Your task to perform on an android device: turn off smart reply in the gmail app Image 0: 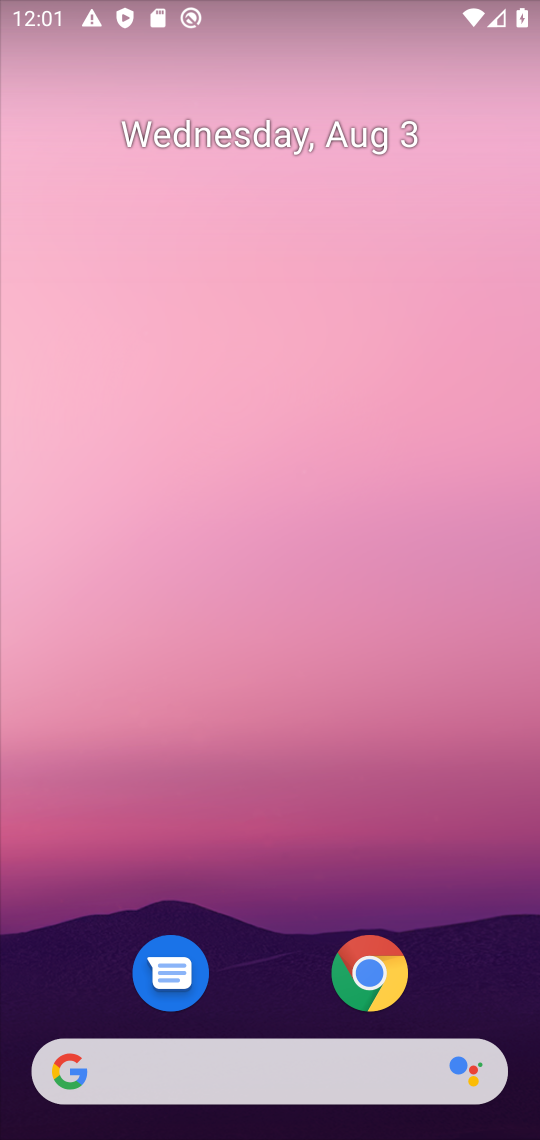
Step 0: drag from (228, 1049) to (126, 93)
Your task to perform on an android device: turn off smart reply in the gmail app Image 1: 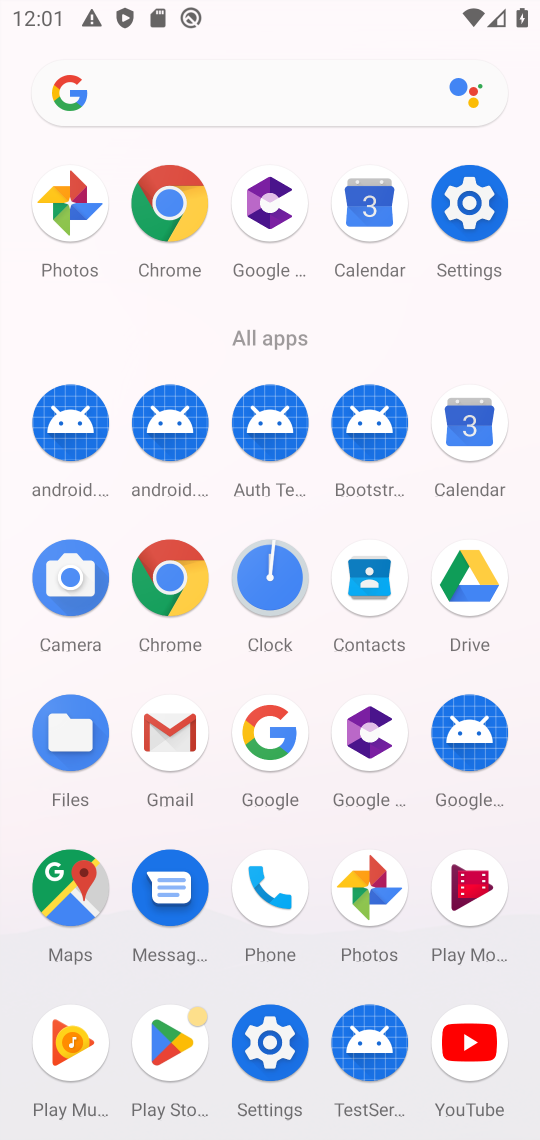
Step 1: click (163, 732)
Your task to perform on an android device: turn off smart reply in the gmail app Image 2: 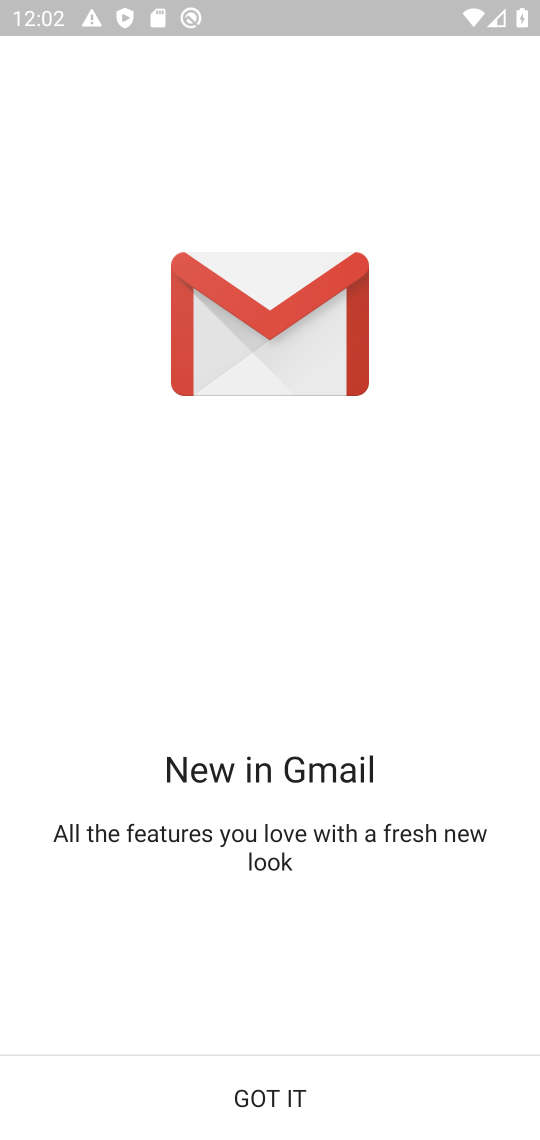
Step 2: click (271, 1078)
Your task to perform on an android device: turn off smart reply in the gmail app Image 3: 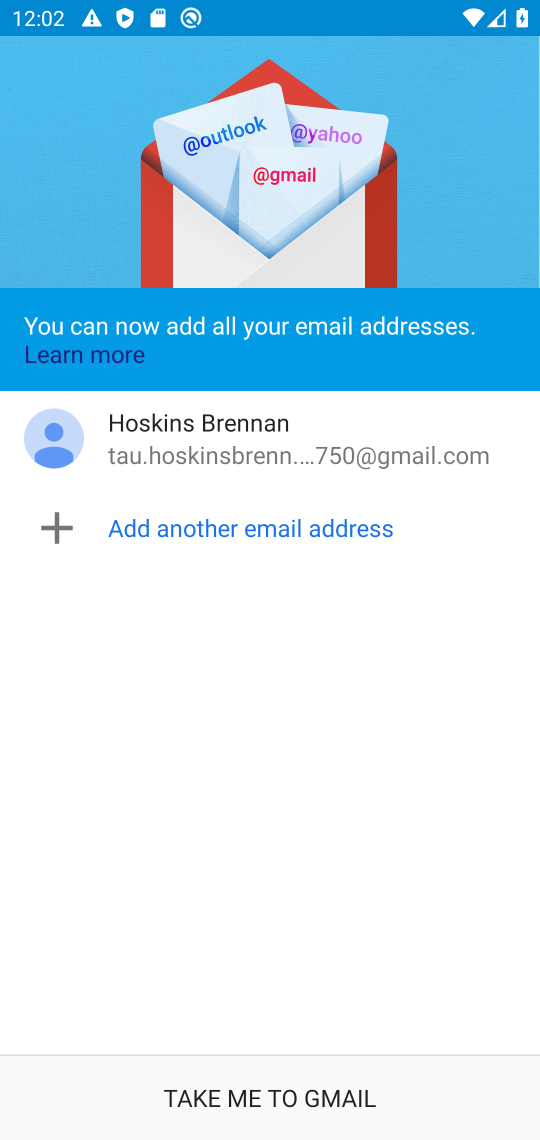
Step 3: click (282, 1098)
Your task to perform on an android device: turn off smart reply in the gmail app Image 4: 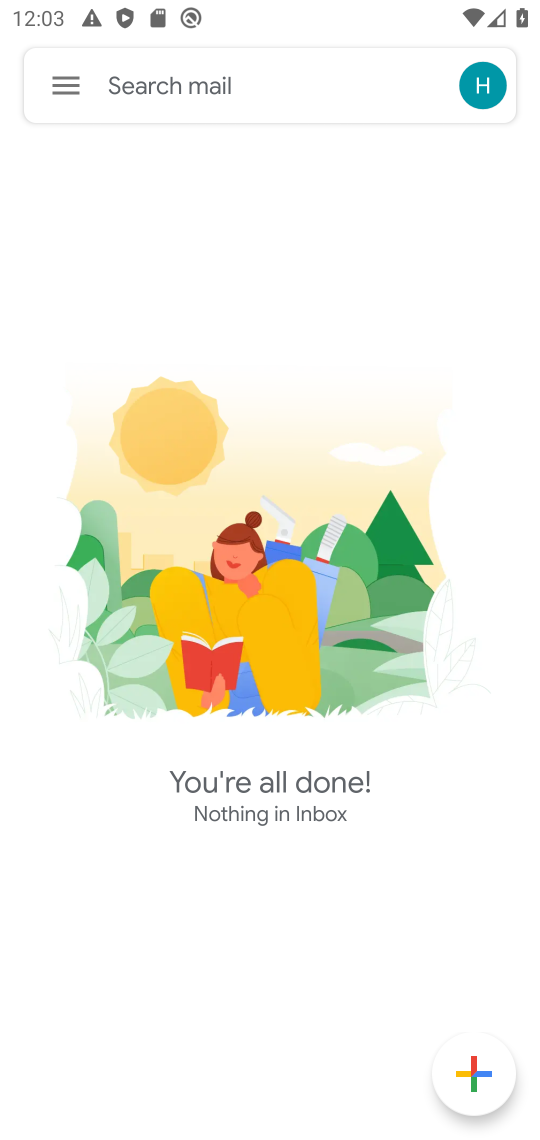
Step 4: click (66, 76)
Your task to perform on an android device: turn off smart reply in the gmail app Image 5: 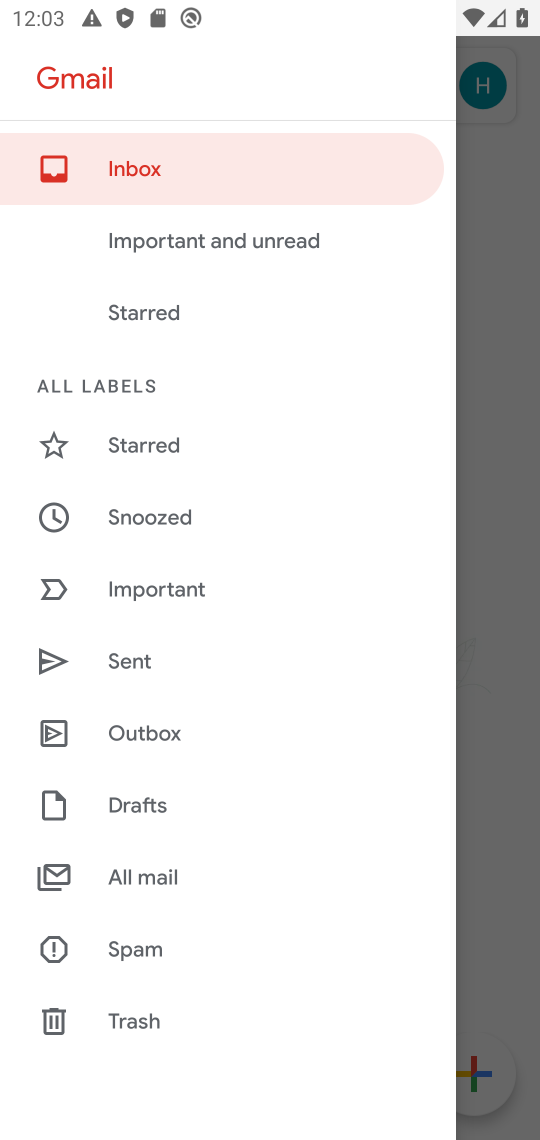
Step 5: drag from (190, 1049) to (98, 231)
Your task to perform on an android device: turn off smart reply in the gmail app Image 6: 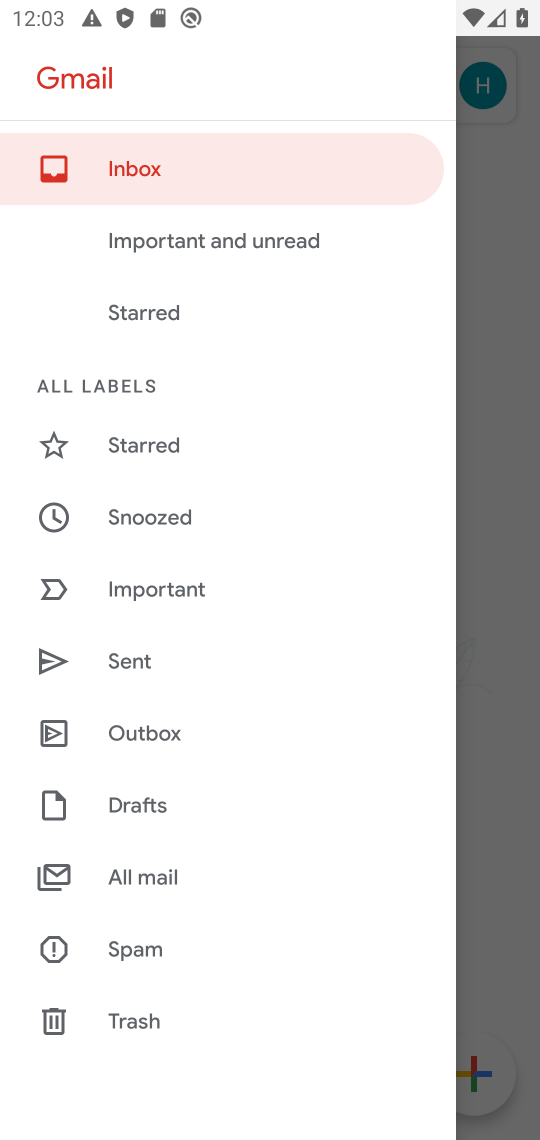
Step 6: drag from (140, 968) to (129, 317)
Your task to perform on an android device: turn off smart reply in the gmail app Image 7: 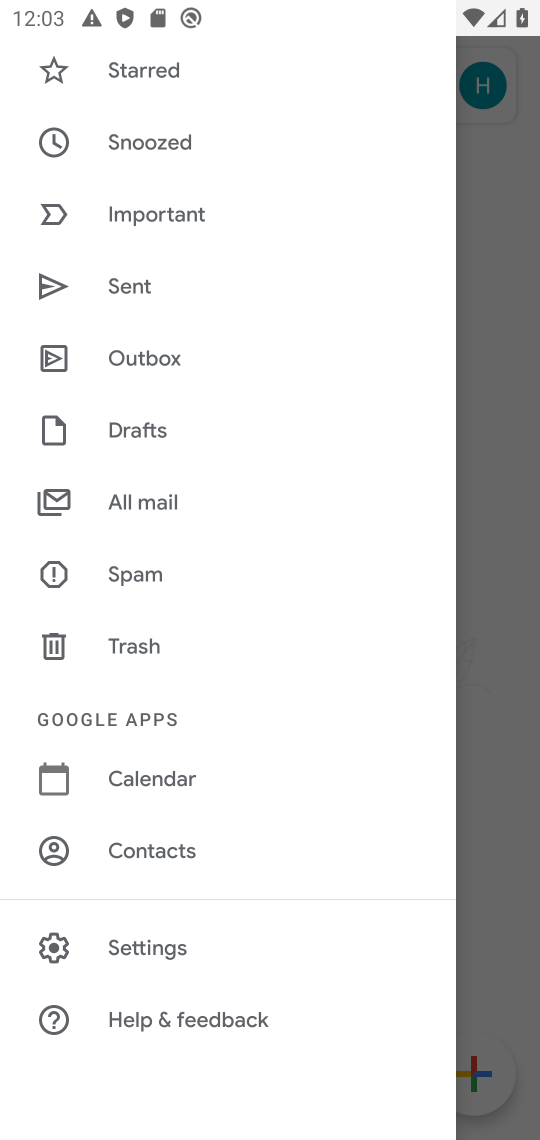
Step 7: click (109, 950)
Your task to perform on an android device: turn off smart reply in the gmail app Image 8: 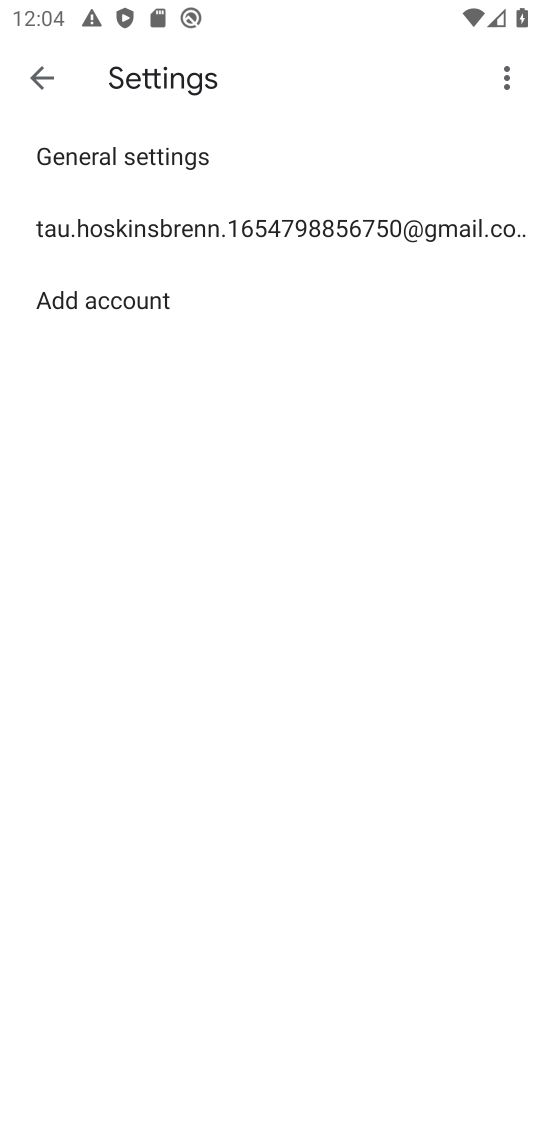
Step 8: click (121, 226)
Your task to perform on an android device: turn off smart reply in the gmail app Image 9: 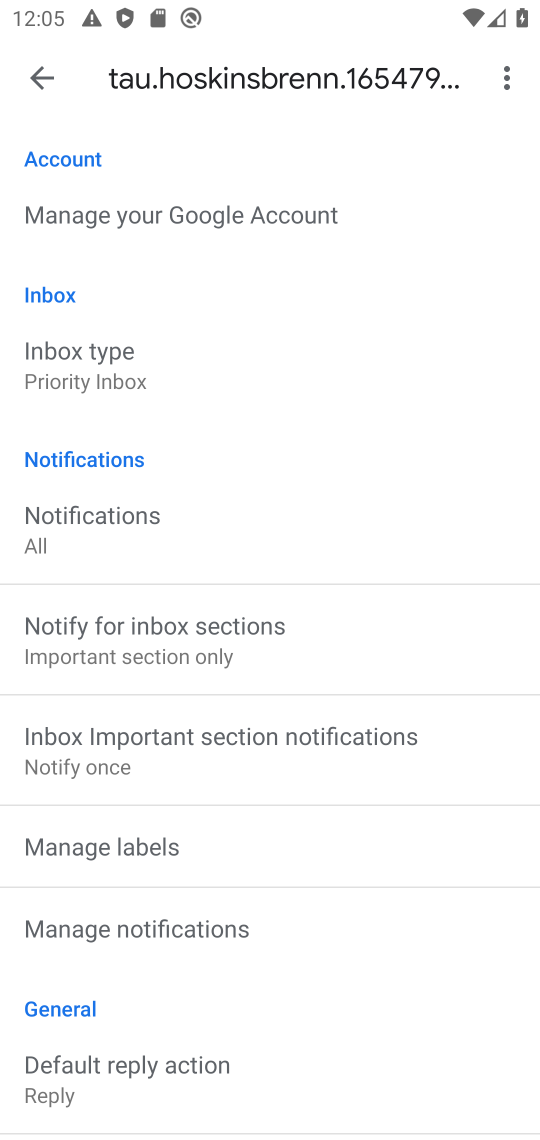
Step 9: drag from (197, 1061) to (252, 30)
Your task to perform on an android device: turn off smart reply in the gmail app Image 10: 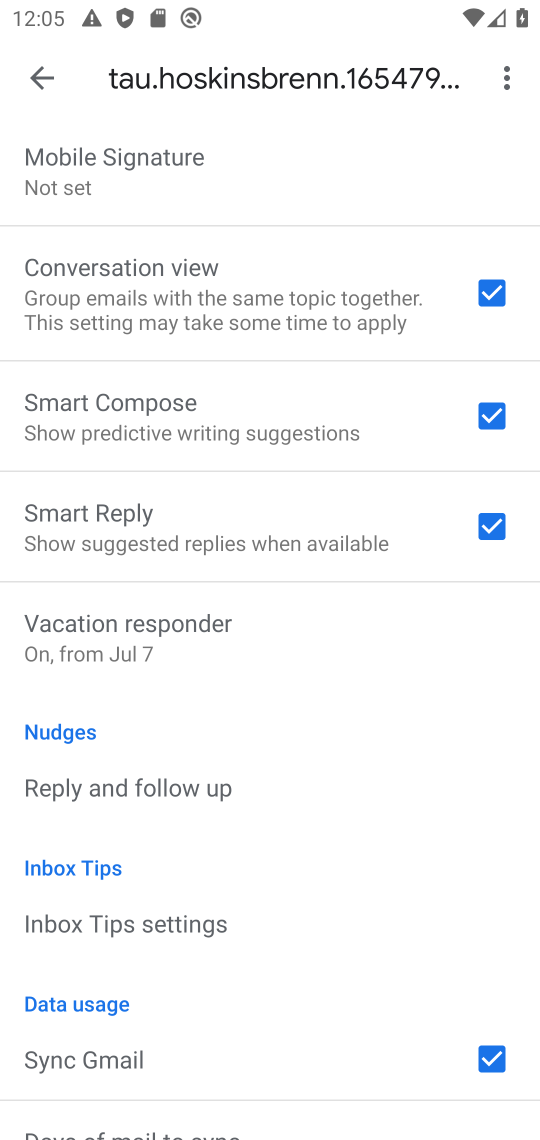
Step 10: click (495, 520)
Your task to perform on an android device: turn off smart reply in the gmail app Image 11: 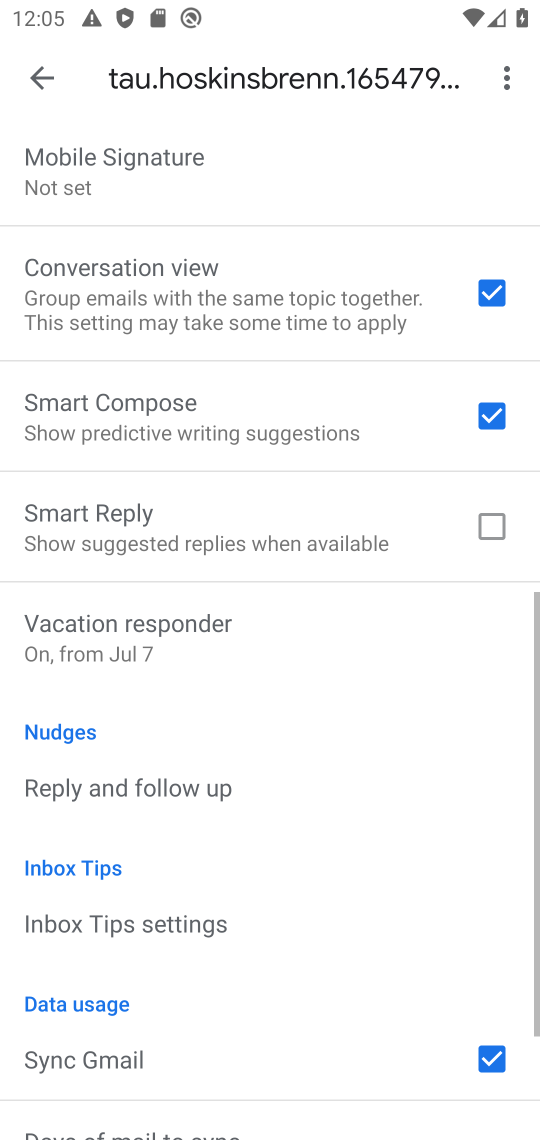
Step 11: task complete